Your task to perform on an android device: find which apps use the phone's location Image 0: 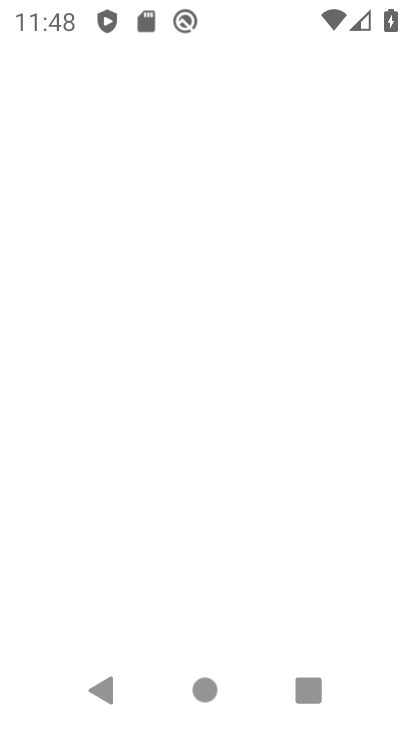
Step 0: press home button
Your task to perform on an android device: find which apps use the phone's location Image 1: 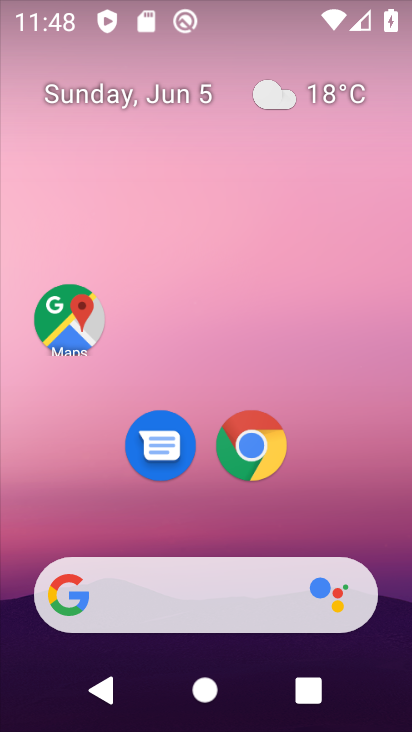
Step 1: drag from (345, 640) to (332, 144)
Your task to perform on an android device: find which apps use the phone's location Image 2: 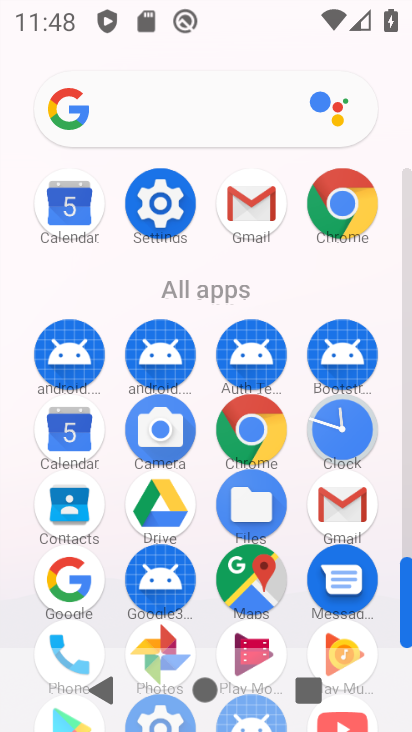
Step 2: click (159, 179)
Your task to perform on an android device: find which apps use the phone's location Image 3: 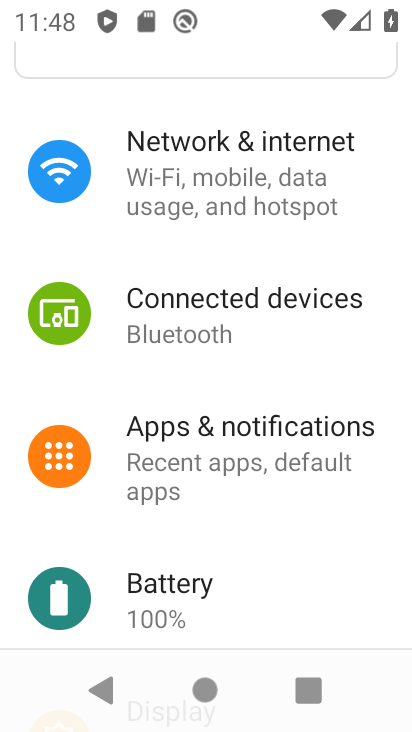
Step 3: drag from (190, 551) to (246, 95)
Your task to perform on an android device: find which apps use the phone's location Image 4: 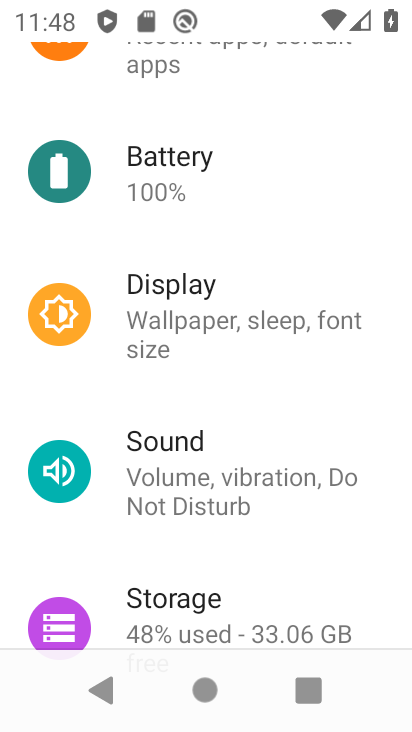
Step 4: drag from (217, 510) to (264, 177)
Your task to perform on an android device: find which apps use the phone's location Image 5: 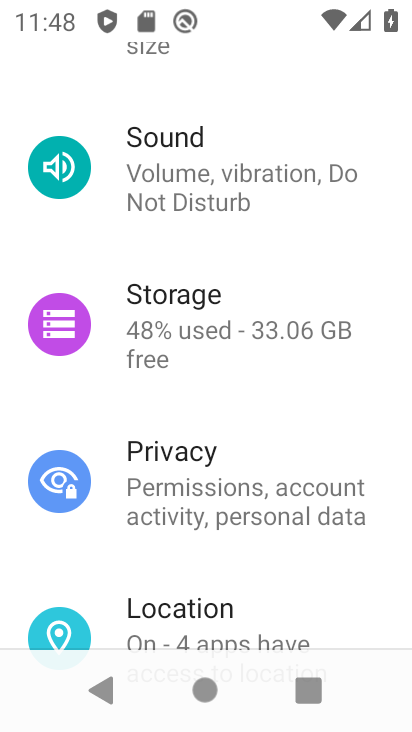
Step 5: click (214, 616)
Your task to perform on an android device: find which apps use the phone's location Image 6: 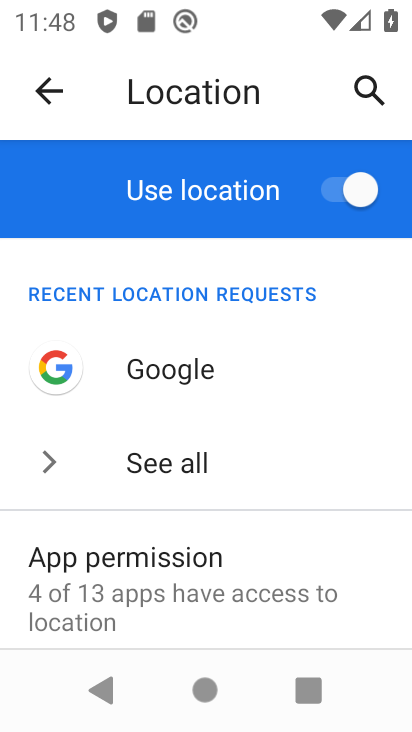
Step 6: drag from (273, 655) to (213, 344)
Your task to perform on an android device: find which apps use the phone's location Image 7: 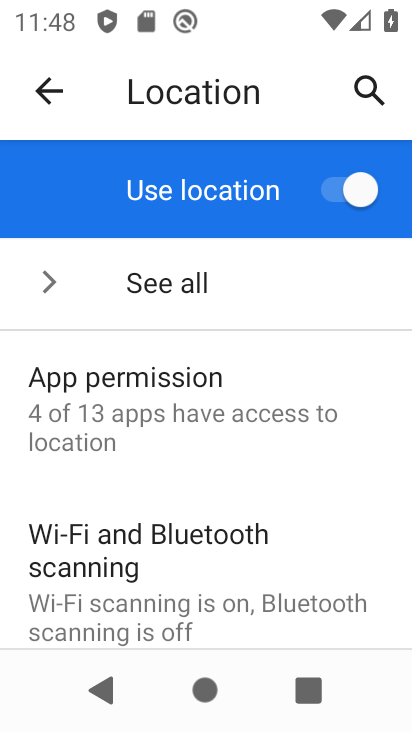
Step 7: click (230, 375)
Your task to perform on an android device: find which apps use the phone's location Image 8: 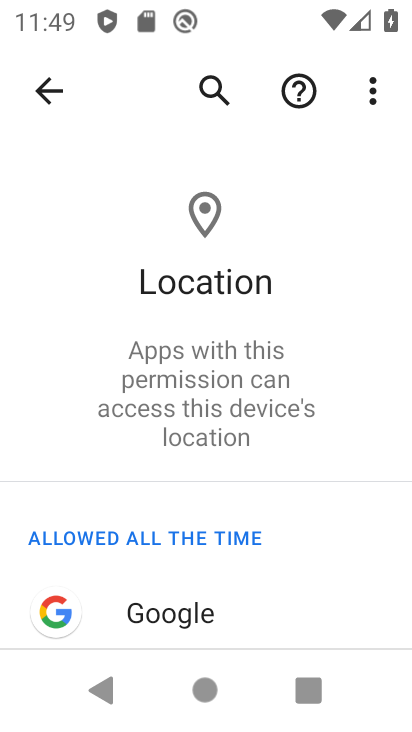
Step 8: task complete